Your task to perform on an android device: find snoozed emails in the gmail app Image 0: 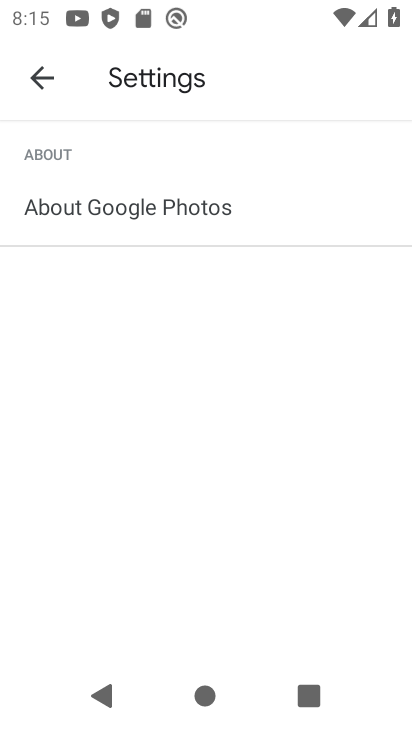
Step 0: press back button
Your task to perform on an android device: find snoozed emails in the gmail app Image 1: 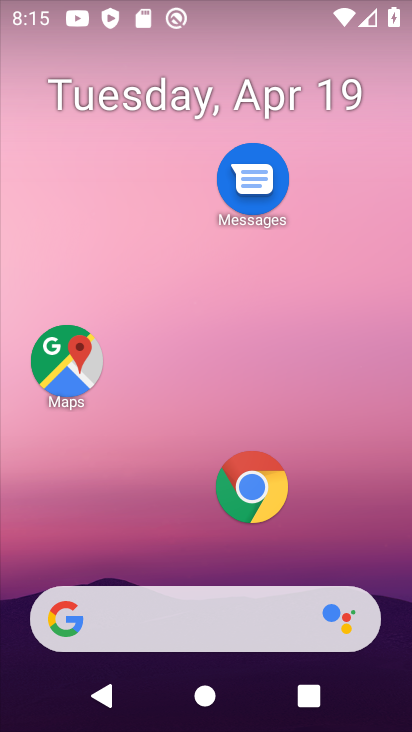
Step 1: drag from (140, 549) to (225, 206)
Your task to perform on an android device: find snoozed emails in the gmail app Image 2: 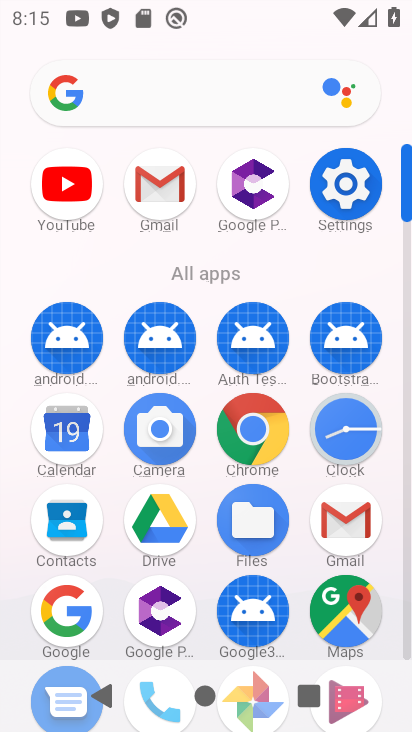
Step 2: click (358, 518)
Your task to perform on an android device: find snoozed emails in the gmail app Image 3: 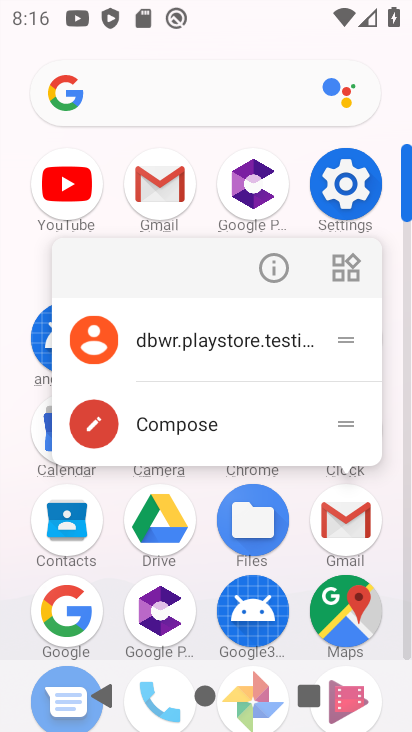
Step 3: click (364, 518)
Your task to perform on an android device: find snoozed emails in the gmail app Image 4: 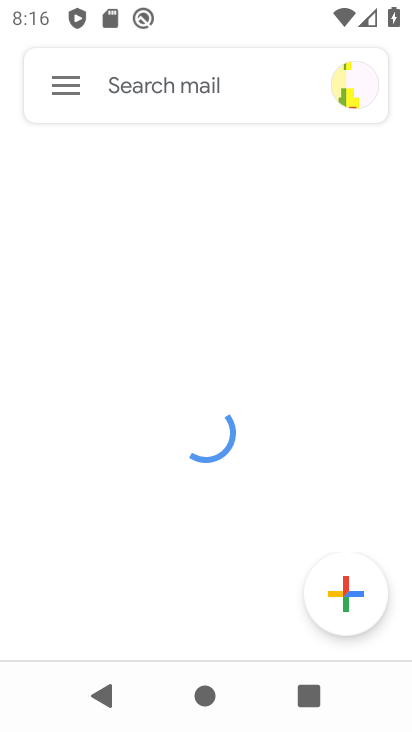
Step 4: click (72, 89)
Your task to perform on an android device: find snoozed emails in the gmail app Image 5: 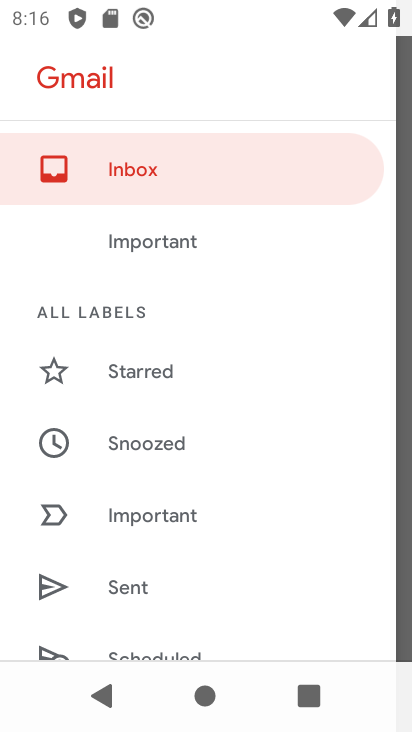
Step 5: click (169, 432)
Your task to perform on an android device: find snoozed emails in the gmail app Image 6: 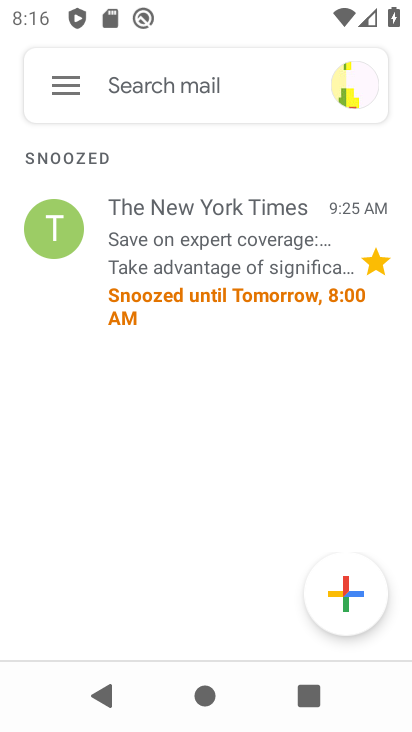
Step 6: task complete